Your task to perform on an android device: Open ESPN.com Image 0: 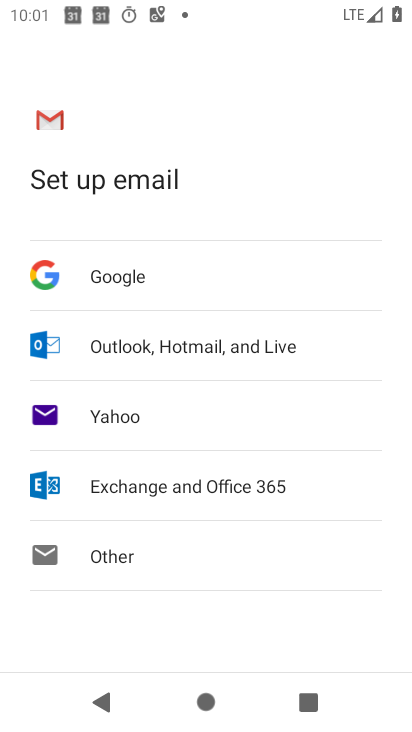
Step 0: press home button
Your task to perform on an android device: Open ESPN.com Image 1: 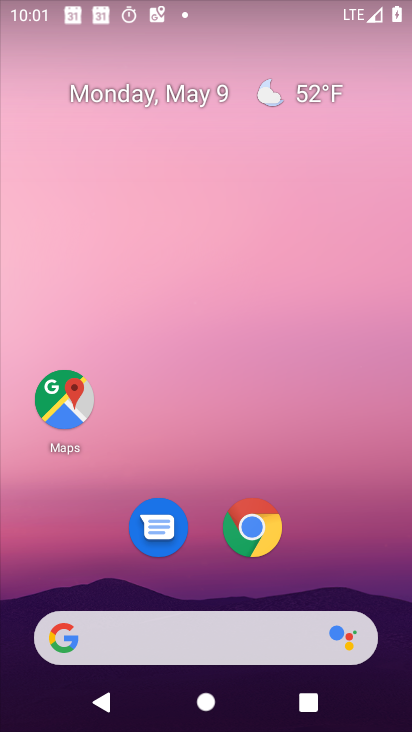
Step 1: drag from (363, 558) to (395, 69)
Your task to perform on an android device: Open ESPN.com Image 2: 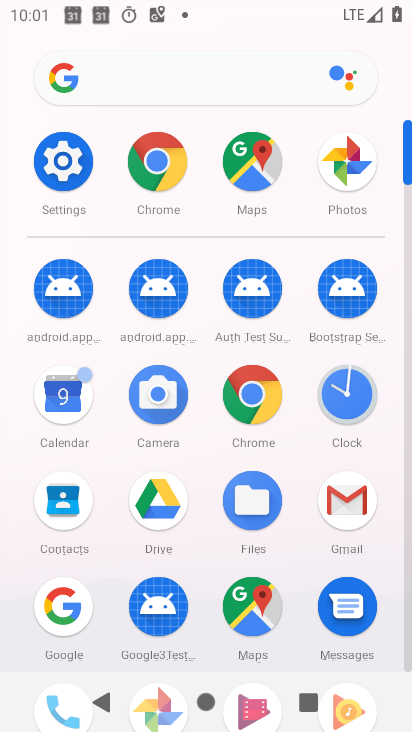
Step 2: click (155, 163)
Your task to perform on an android device: Open ESPN.com Image 3: 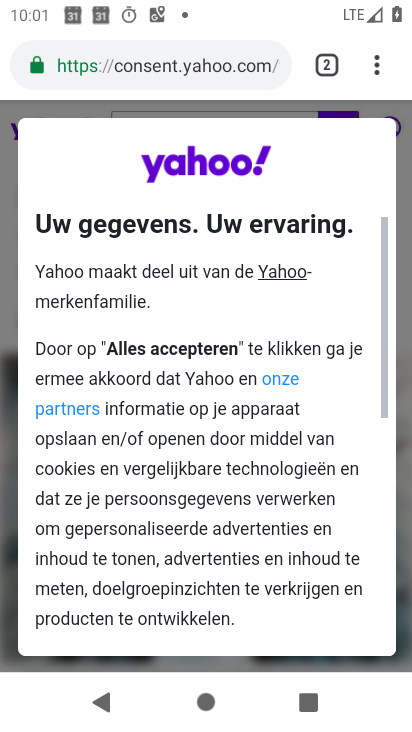
Step 3: drag from (286, 550) to (295, 183)
Your task to perform on an android device: Open ESPN.com Image 4: 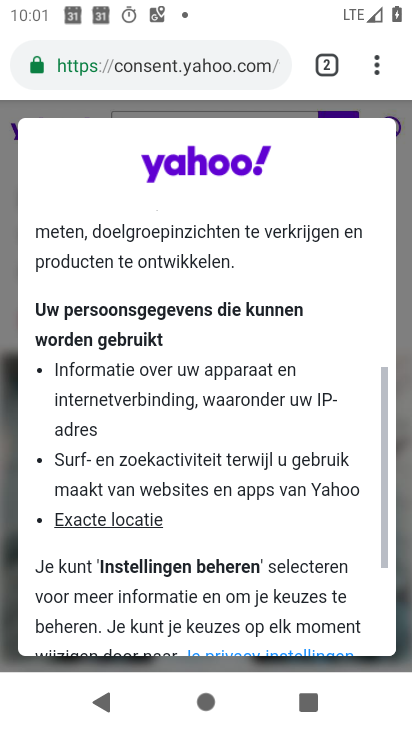
Step 4: drag from (267, 607) to (335, 186)
Your task to perform on an android device: Open ESPN.com Image 5: 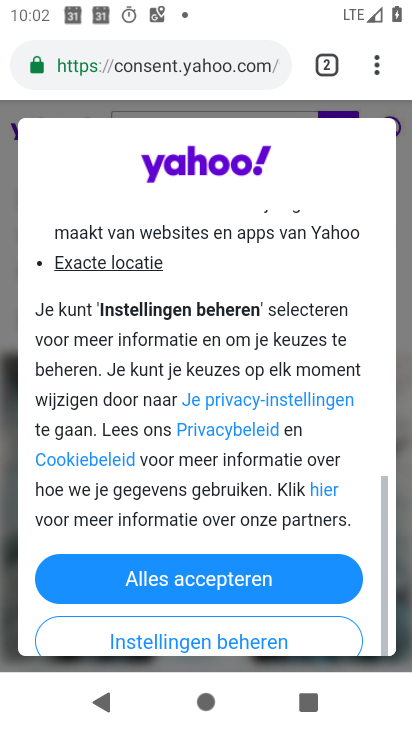
Step 5: click (203, 589)
Your task to perform on an android device: Open ESPN.com Image 6: 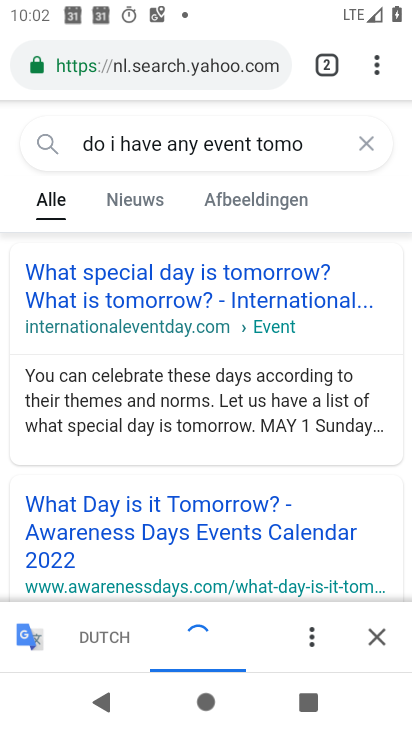
Step 6: click (238, 59)
Your task to perform on an android device: Open ESPN.com Image 7: 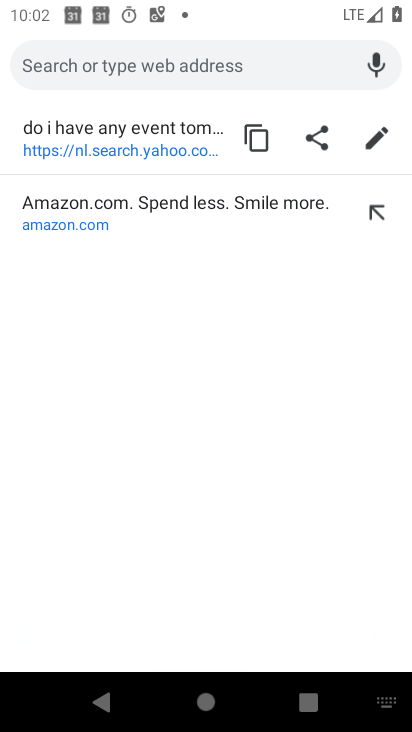
Step 7: type "espn.com"
Your task to perform on an android device: Open ESPN.com Image 8: 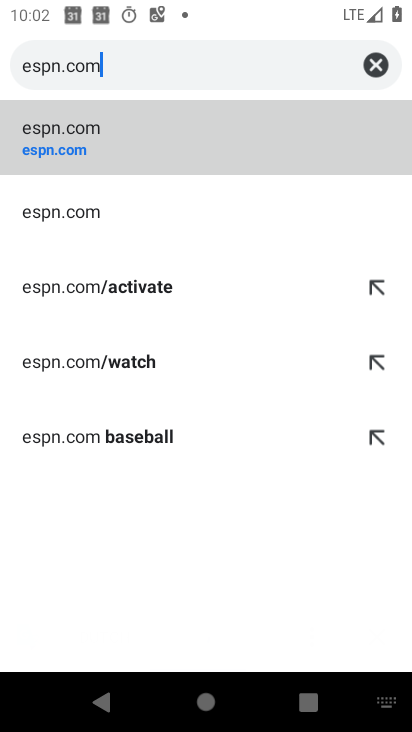
Step 8: click (79, 151)
Your task to perform on an android device: Open ESPN.com Image 9: 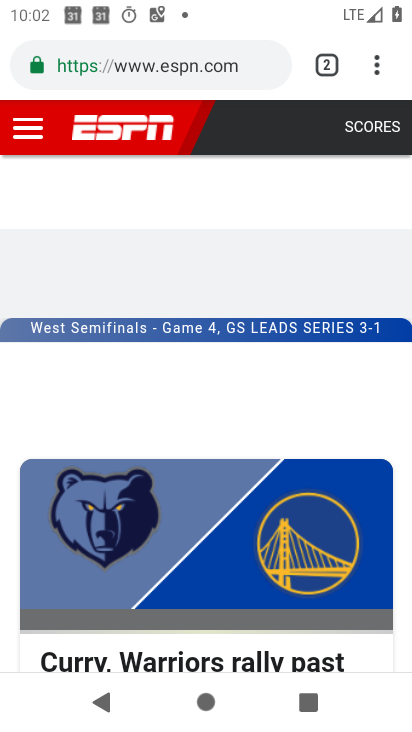
Step 9: task complete